Your task to perform on an android device: change the clock display to show seconds Image 0: 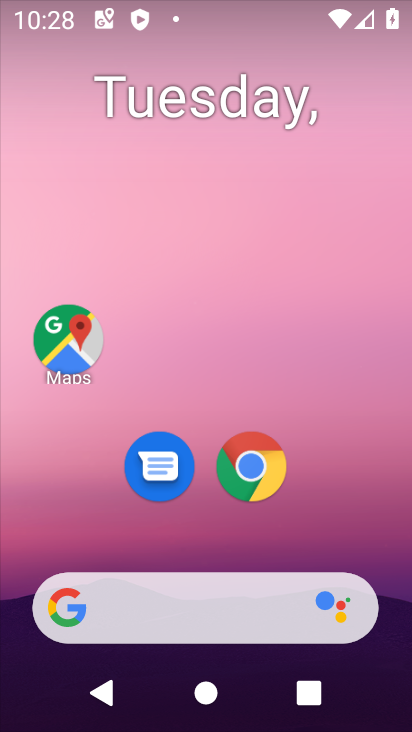
Step 0: drag from (70, 552) to (210, 71)
Your task to perform on an android device: change the clock display to show seconds Image 1: 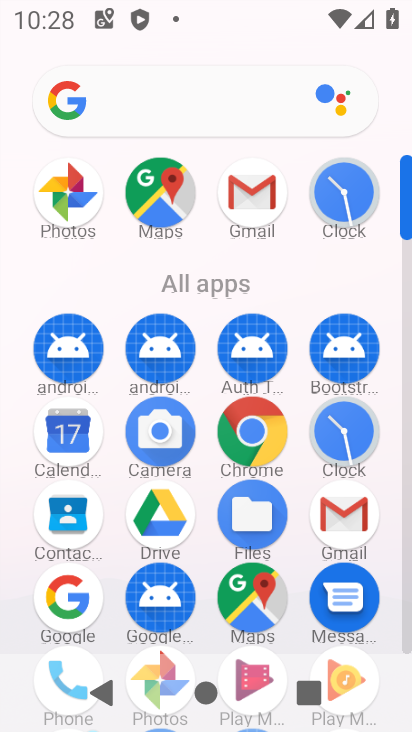
Step 1: click (347, 450)
Your task to perform on an android device: change the clock display to show seconds Image 2: 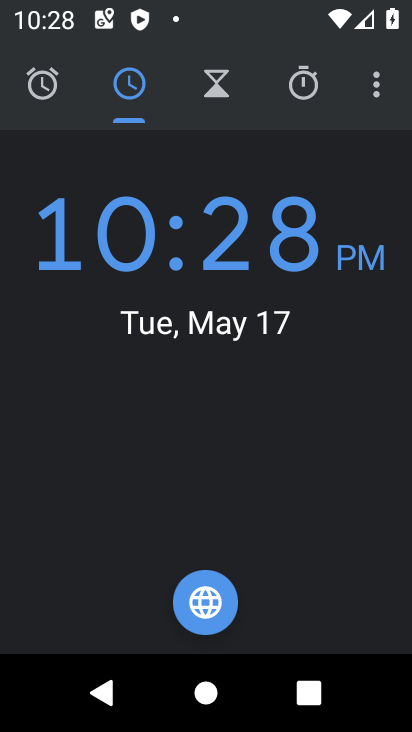
Step 2: click (390, 98)
Your task to perform on an android device: change the clock display to show seconds Image 3: 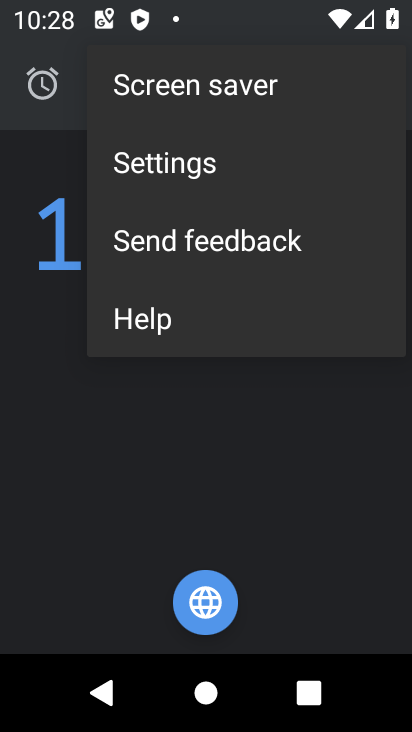
Step 3: click (265, 179)
Your task to perform on an android device: change the clock display to show seconds Image 4: 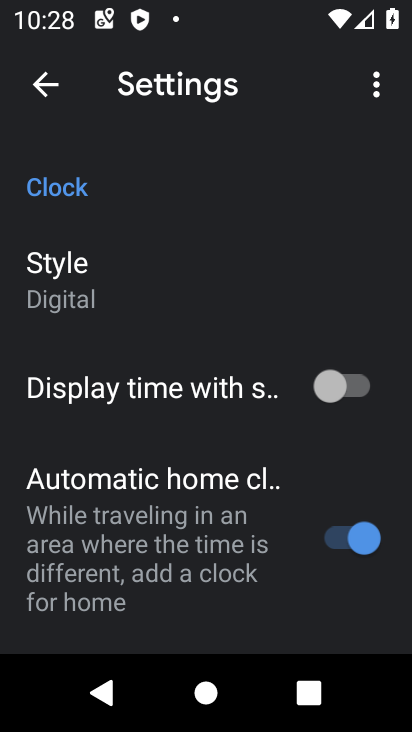
Step 4: click (365, 385)
Your task to perform on an android device: change the clock display to show seconds Image 5: 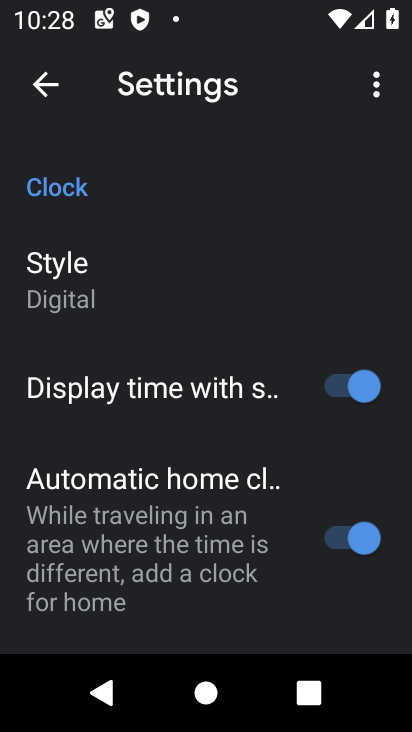
Step 5: task complete